Your task to perform on an android device: Open the phone app and click the voicemail tab. Image 0: 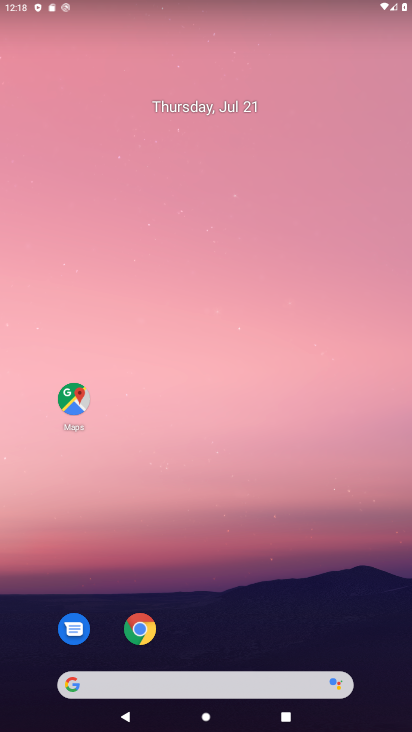
Step 0: drag from (355, 583) to (232, 151)
Your task to perform on an android device: Open the phone app and click the voicemail tab. Image 1: 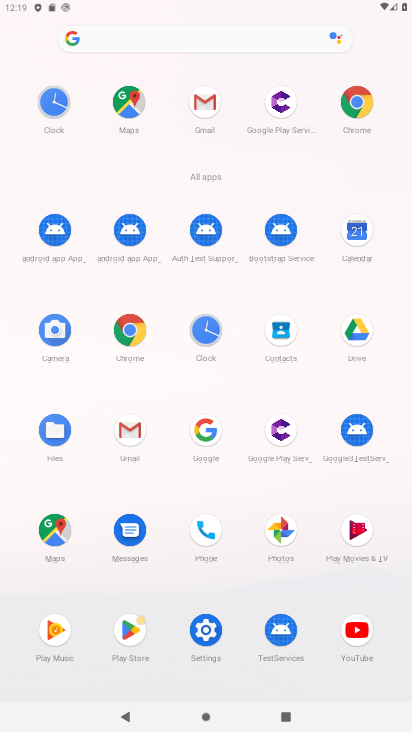
Step 1: click (208, 531)
Your task to perform on an android device: Open the phone app and click the voicemail tab. Image 2: 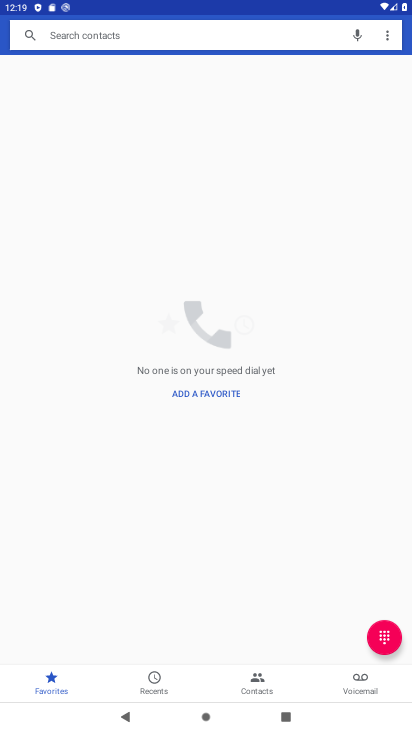
Step 2: click (365, 680)
Your task to perform on an android device: Open the phone app and click the voicemail tab. Image 3: 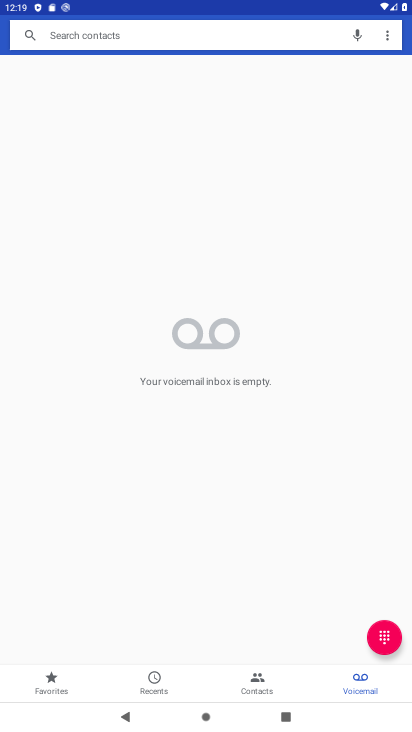
Step 3: task complete